Your task to perform on an android device: Show me productivity apps on the Play Store Image 0: 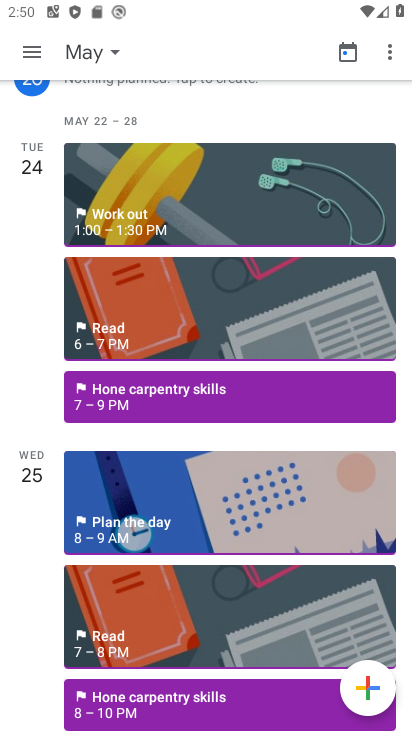
Step 0: press home button
Your task to perform on an android device: Show me productivity apps on the Play Store Image 1: 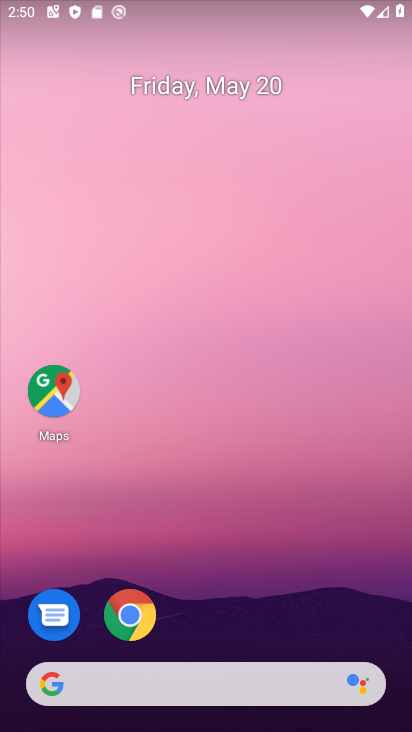
Step 1: drag from (214, 484) to (214, 230)
Your task to perform on an android device: Show me productivity apps on the Play Store Image 2: 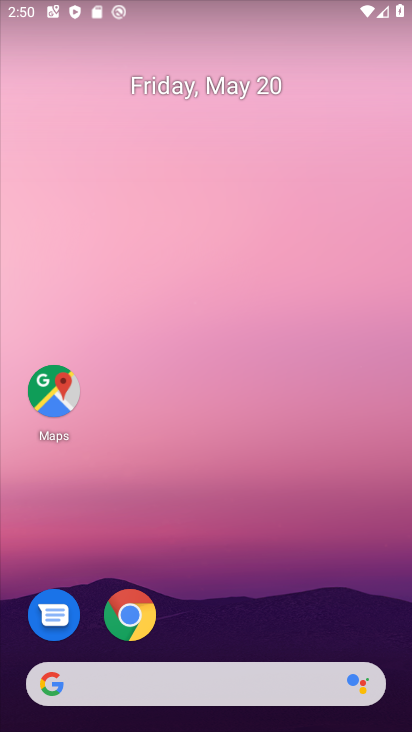
Step 2: drag from (243, 559) to (279, 55)
Your task to perform on an android device: Show me productivity apps on the Play Store Image 3: 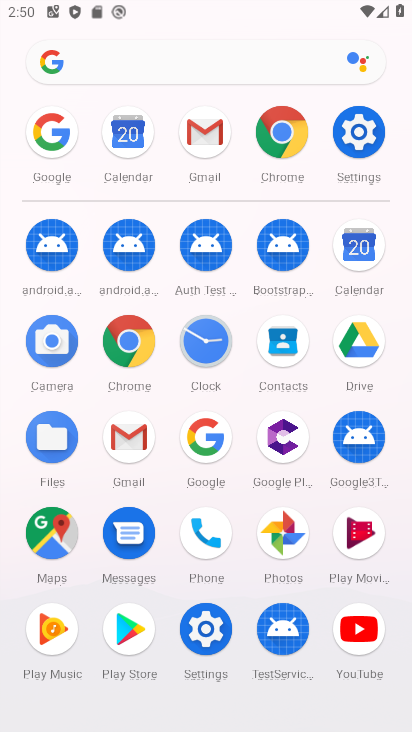
Step 3: click (133, 620)
Your task to perform on an android device: Show me productivity apps on the Play Store Image 4: 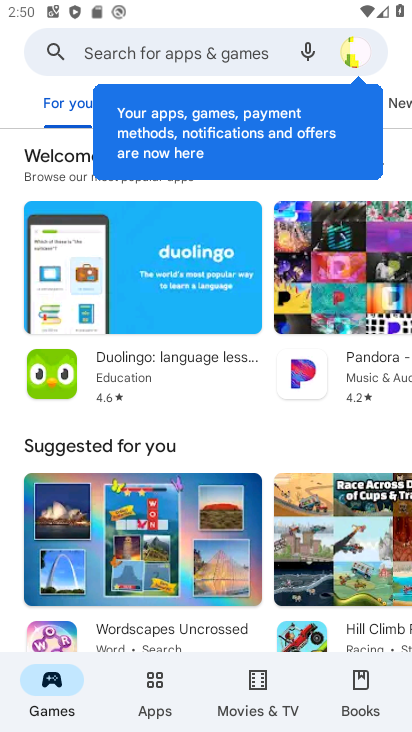
Step 4: click (171, 671)
Your task to perform on an android device: Show me productivity apps on the Play Store Image 5: 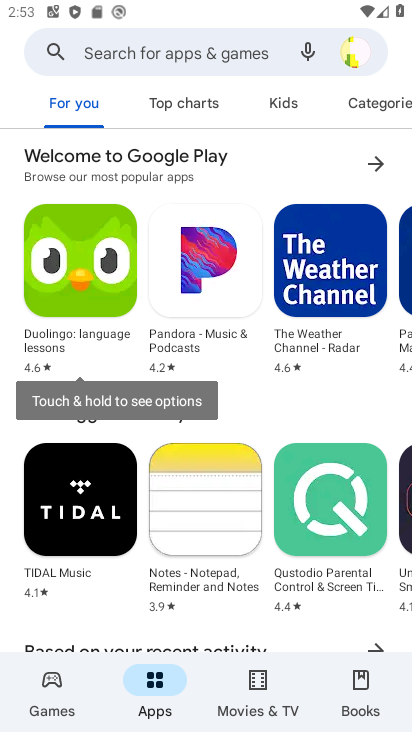
Step 5: task complete